Your task to perform on an android device: Open calendar and show me the first week of next month Image 0: 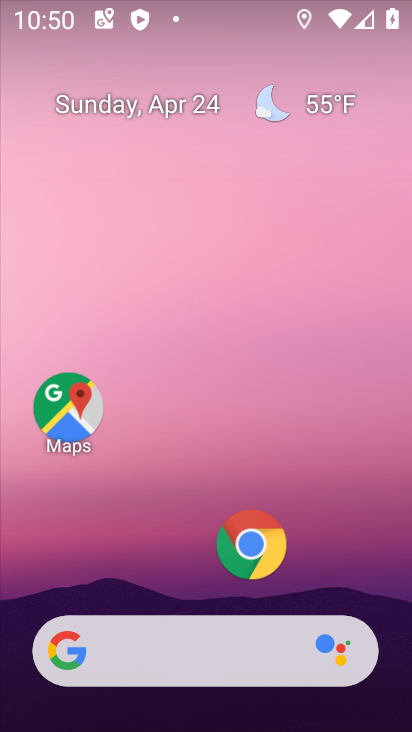
Step 0: drag from (190, 592) to (196, 189)
Your task to perform on an android device: Open calendar and show me the first week of next month Image 1: 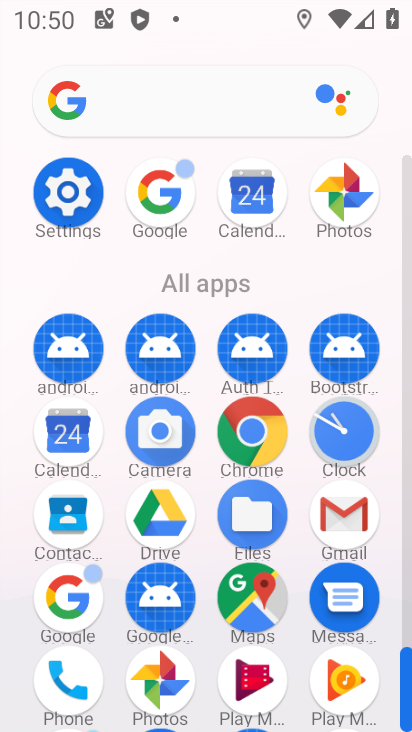
Step 1: click (70, 421)
Your task to perform on an android device: Open calendar and show me the first week of next month Image 2: 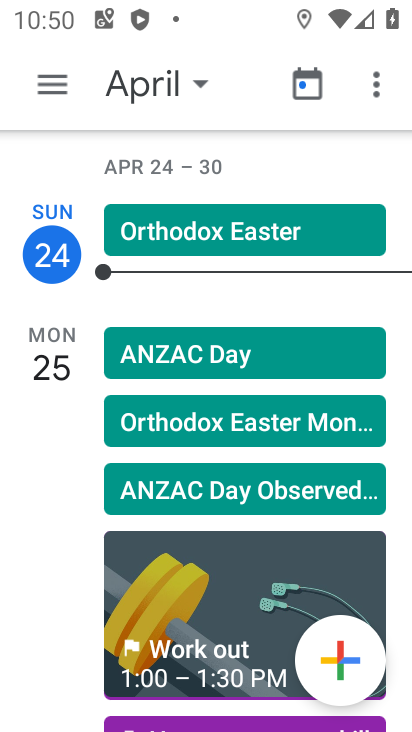
Step 2: click (168, 87)
Your task to perform on an android device: Open calendar and show me the first week of next month Image 3: 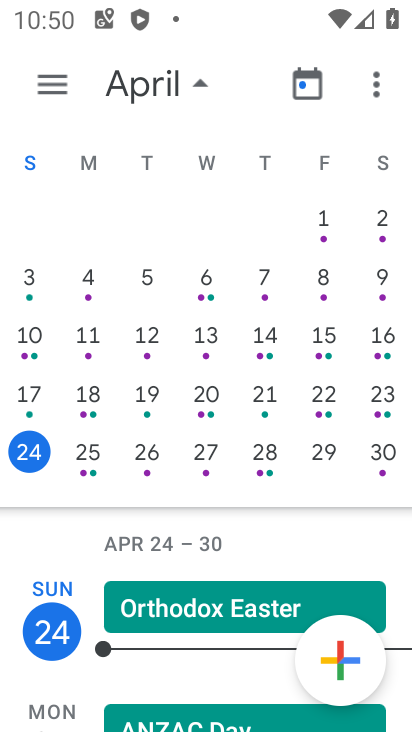
Step 3: drag from (340, 287) to (42, 250)
Your task to perform on an android device: Open calendar and show me the first week of next month Image 4: 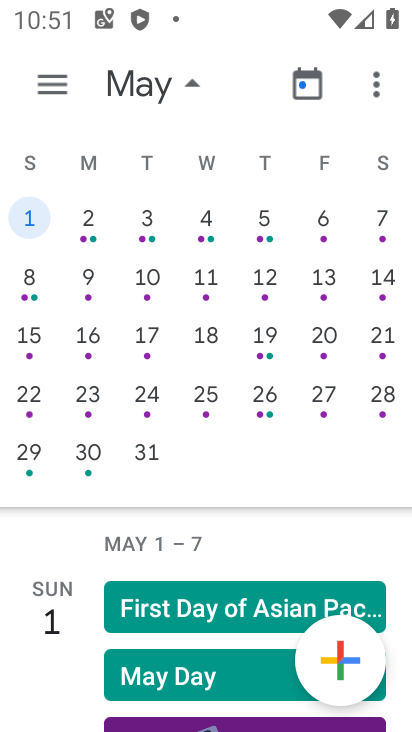
Step 4: click (92, 229)
Your task to perform on an android device: Open calendar and show me the first week of next month Image 5: 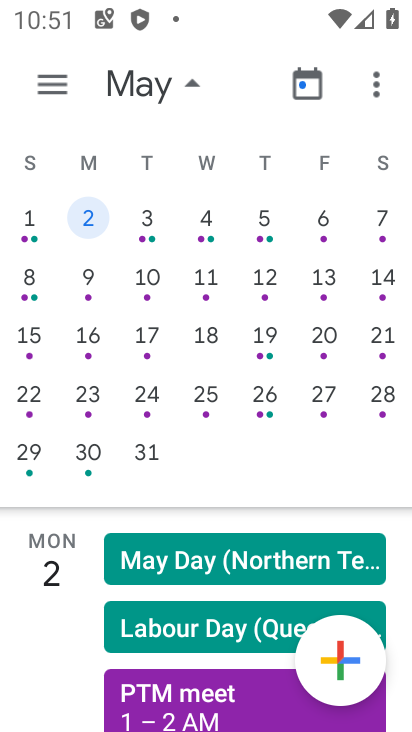
Step 5: click (141, 231)
Your task to perform on an android device: Open calendar and show me the first week of next month Image 6: 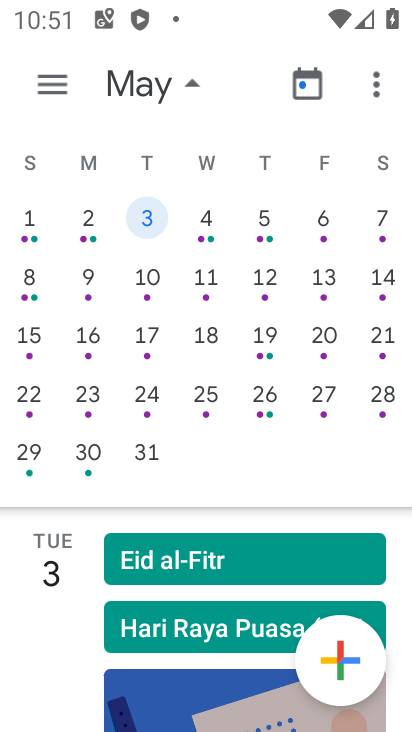
Step 6: task complete